Your task to perform on an android device: Open the calendar and show me this week's events? Image 0: 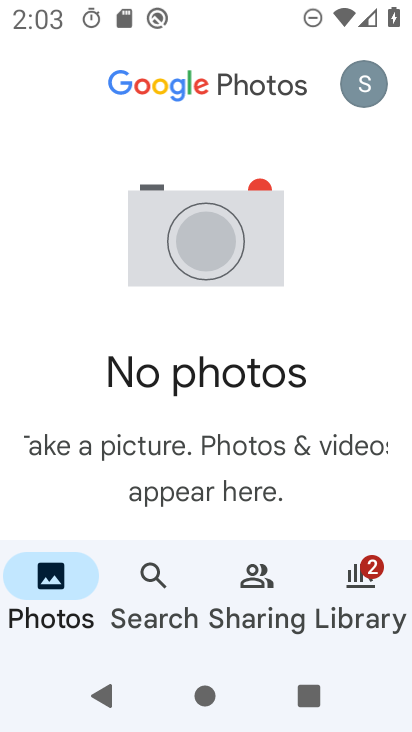
Step 0: press home button
Your task to perform on an android device: Open the calendar and show me this week's events? Image 1: 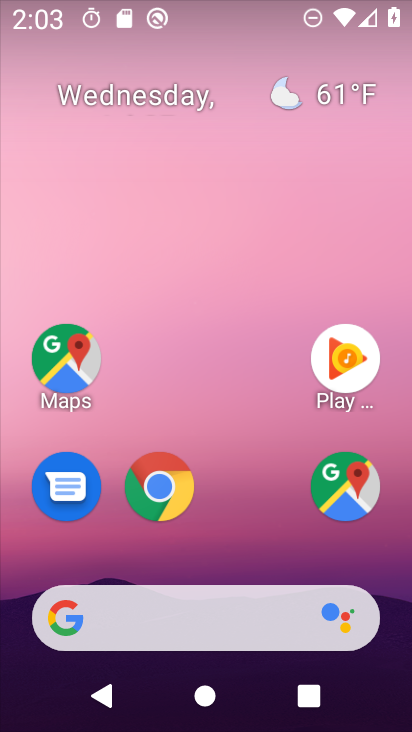
Step 1: drag from (240, 525) to (257, 147)
Your task to perform on an android device: Open the calendar and show me this week's events? Image 2: 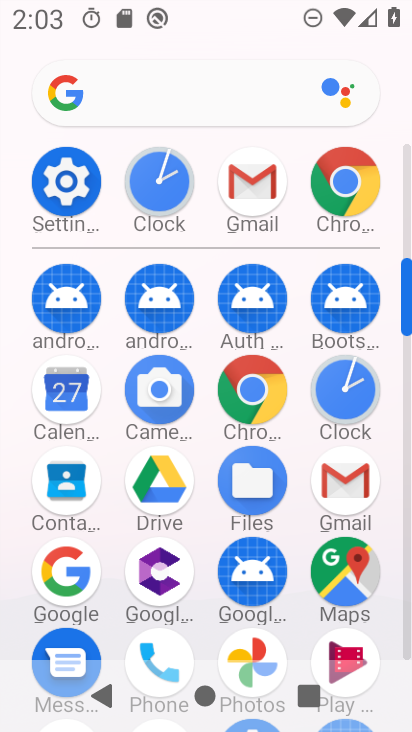
Step 2: click (70, 402)
Your task to perform on an android device: Open the calendar and show me this week's events? Image 3: 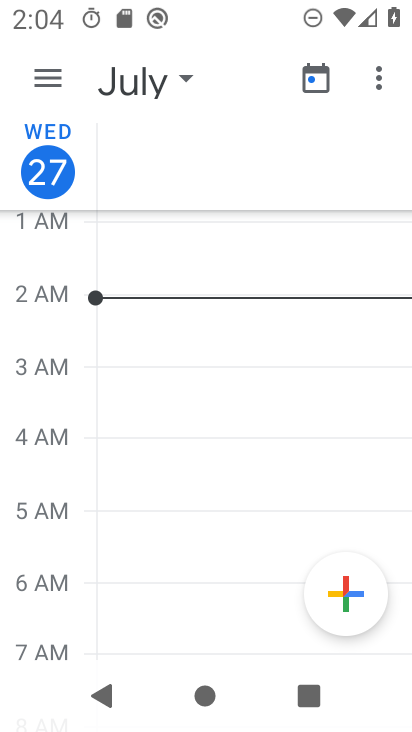
Step 3: click (54, 74)
Your task to perform on an android device: Open the calendar and show me this week's events? Image 4: 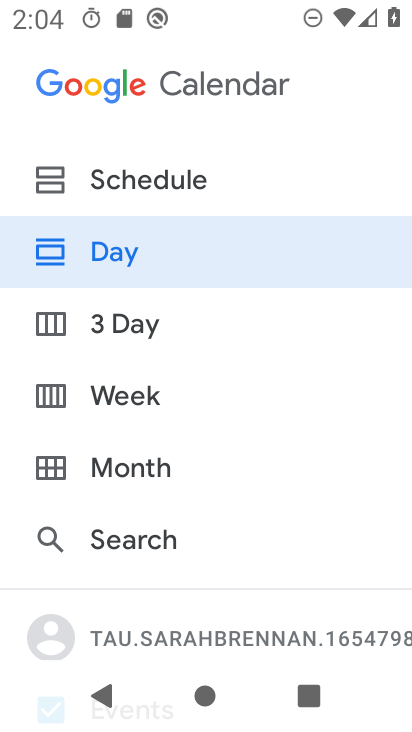
Step 4: click (153, 179)
Your task to perform on an android device: Open the calendar and show me this week's events? Image 5: 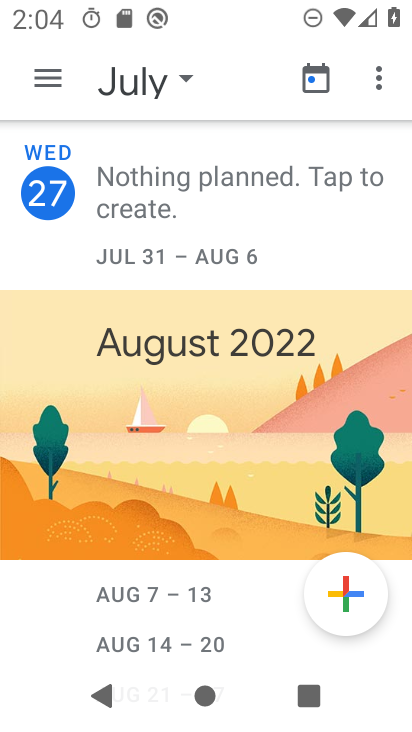
Step 5: task complete